Your task to perform on an android device: Open network settings Image 0: 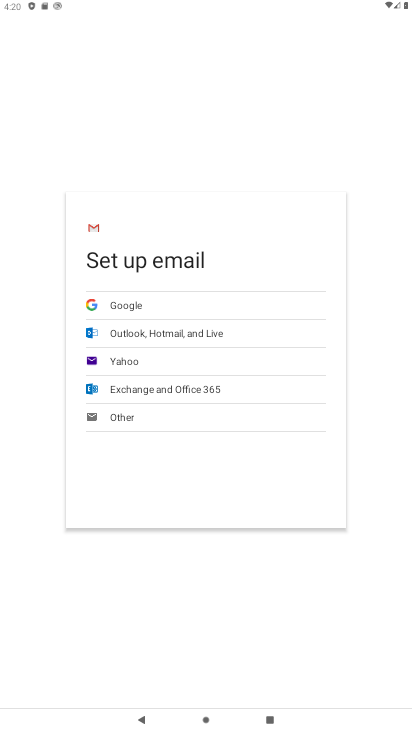
Step 0: press home button
Your task to perform on an android device: Open network settings Image 1: 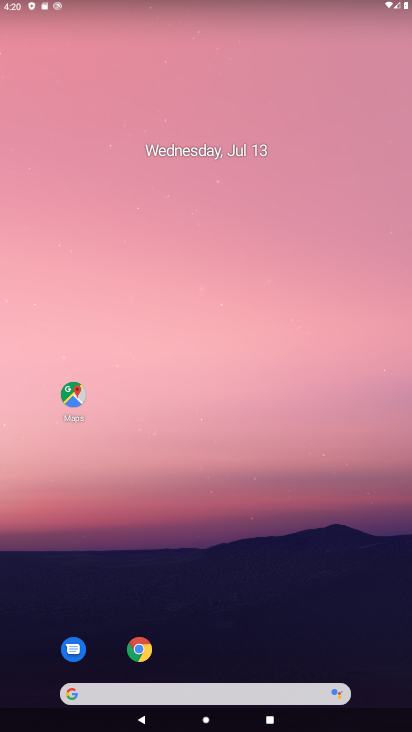
Step 1: drag from (330, 567) to (353, 78)
Your task to perform on an android device: Open network settings Image 2: 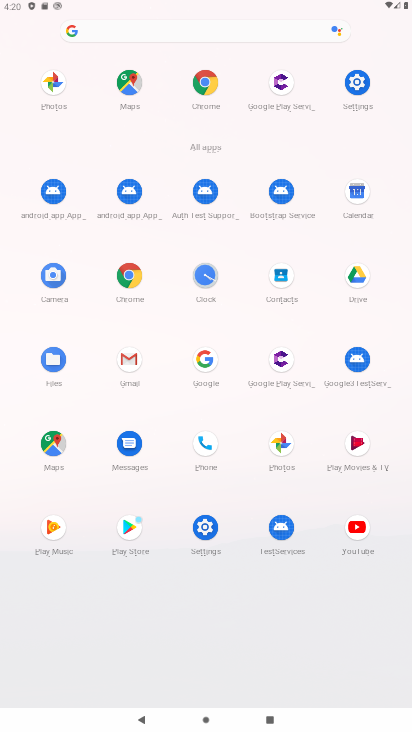
Step 2: click (359, 81)
Your task to perform on an android device: Open network settings Image 3: 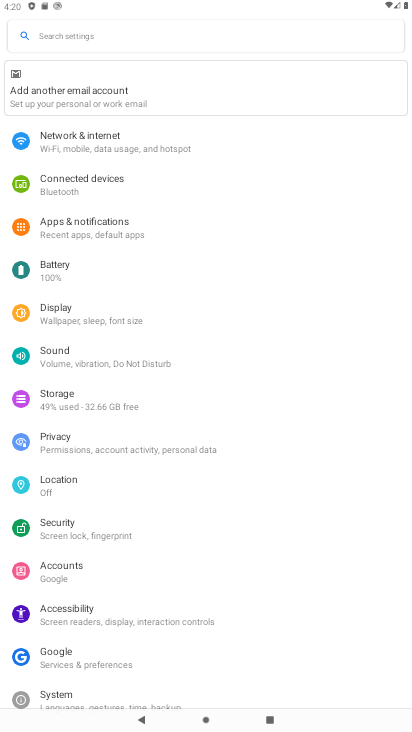
Step 3: click (95, 144)
Your task to perform on an android device: Open network settings Image 4: 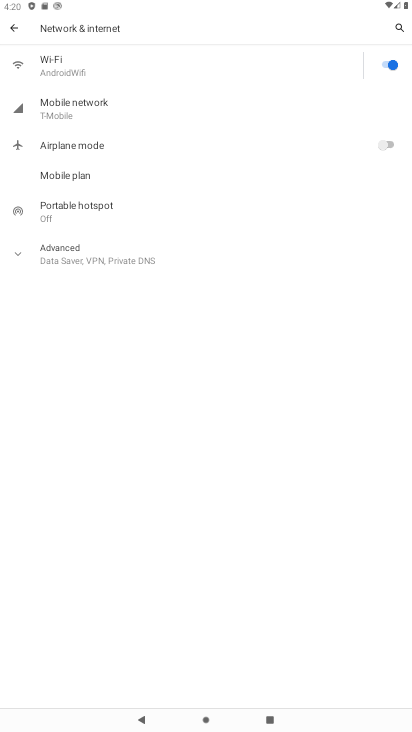
Step 4: task complete